Your task to perform on an android device: Is it going to rain tomorrow? Image 0: 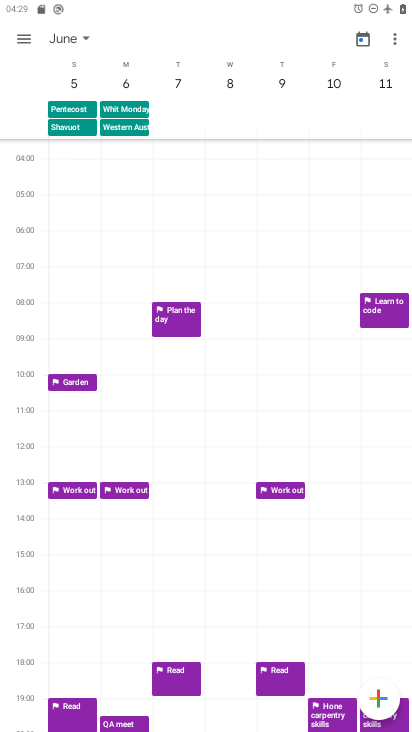
Step 0: click (70, 40)
Your task to perform on an android device: Is it going to rain tomorrow? Image 1: 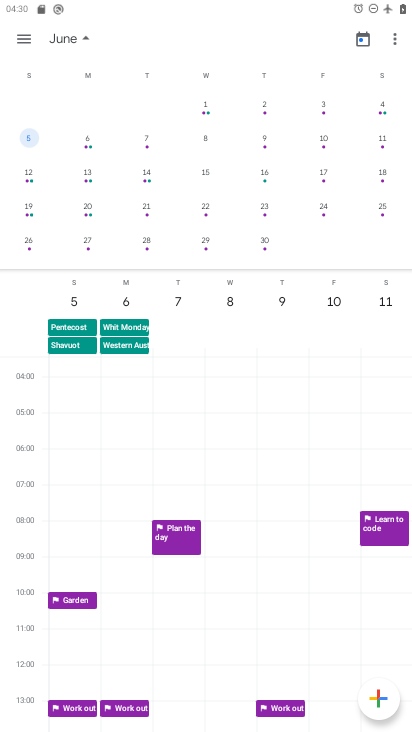
Step 1: drag from (50, 200) to (349, 198)
Your task to perform on an android device: Is it going to rain tomorrow? Image 2: 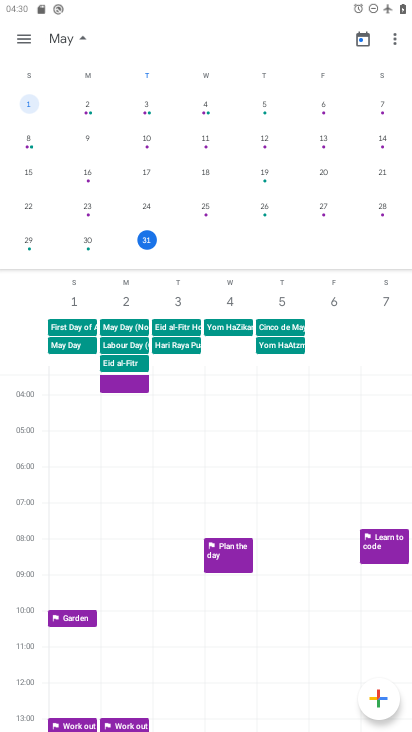
Step 2: click (144, 233)
Your task to perform on an android device: Is it going to rain tomorrow? Image 3: 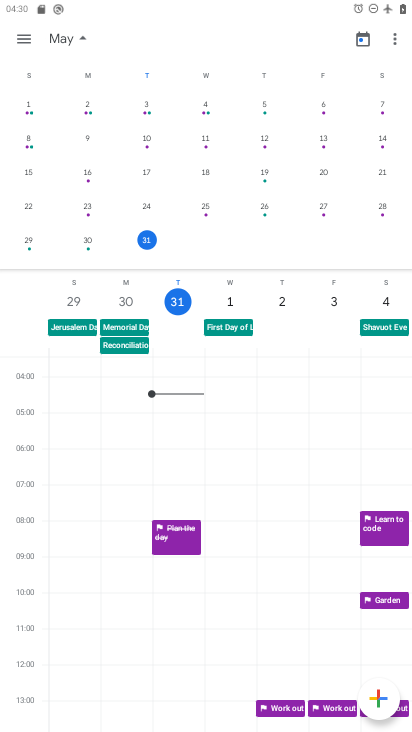
Step 3: click (36, 45)
Your task to perform on an android device: Is it going to rain tomorrow? Image 4: 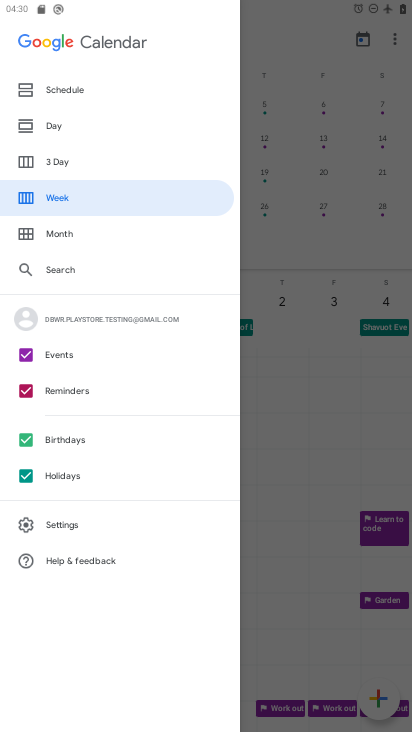
Step 4: click (63, 169)
Your task to perform on an android device: Is it going to rain tomorrow? Image 5: 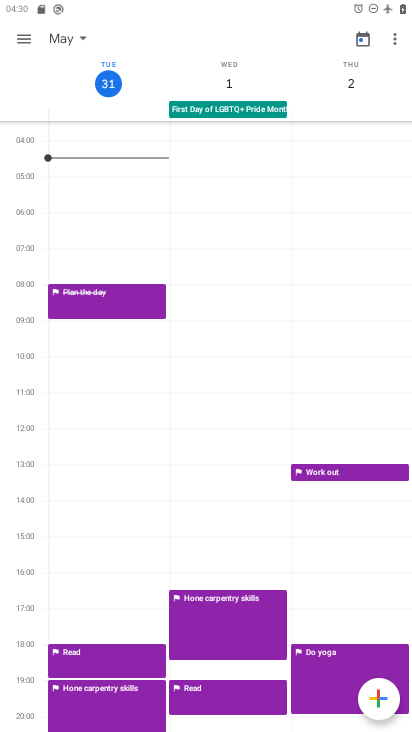
Step 5: click (210, 88)
Your task to perform on an android device: Is it going to rain tomorrow? Image 6: 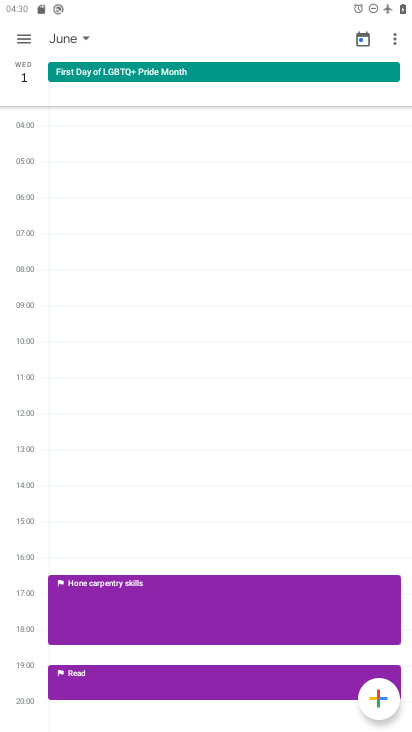
Step 6: task complete